Your task to perform on an android device: turn on javascript in the chrome app Image 0: 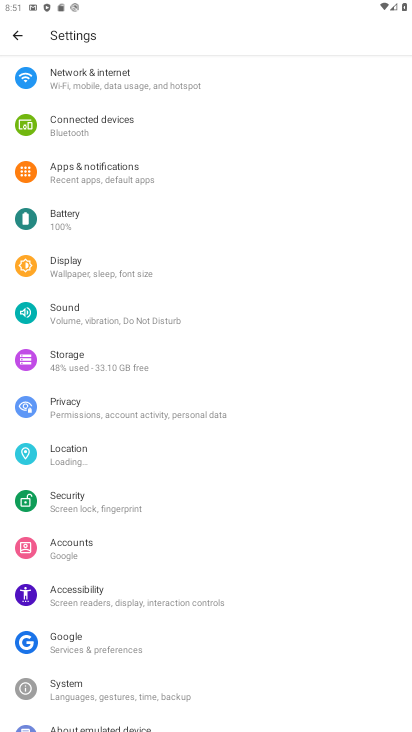
Step 0: press home button
Your task to perform on an android device: turn on javascript in the chrome app Image 1: 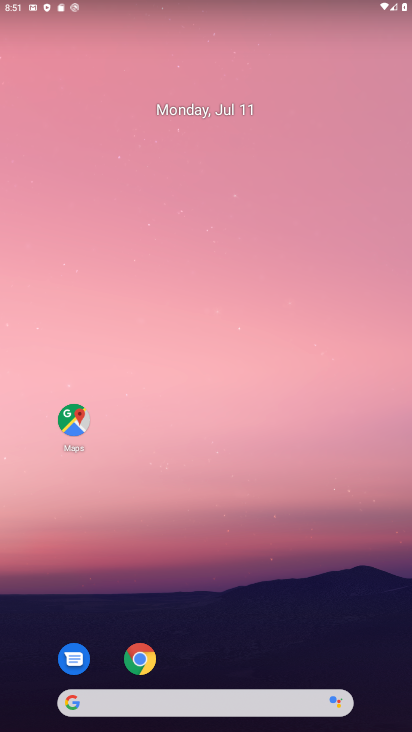
Step 1: drag from (373, 639) to (379, 113)
Your task to perform on an android device: turn on javascript in the chrome app Image 2: 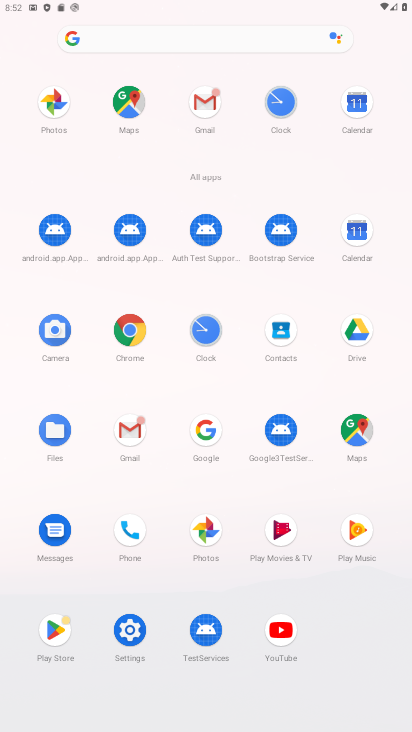
Step 2: click (131, 327)
Your task to perform on an android device: turn on javascript in the chrome app Image 3: 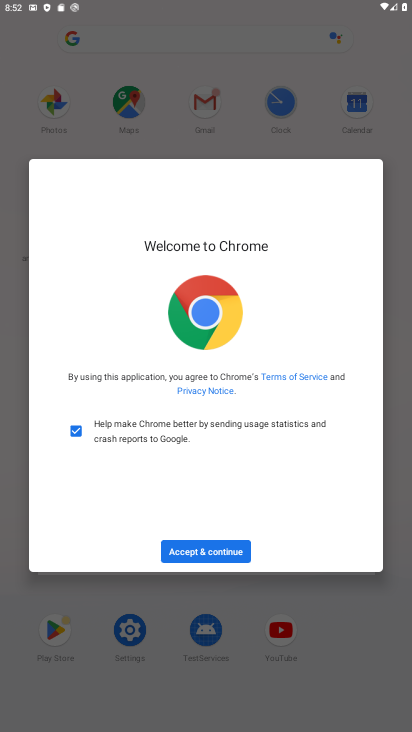
Step 3: click (224, 557)
Your task to perform on an android device: turn on javascript in the chrome app Image 4: 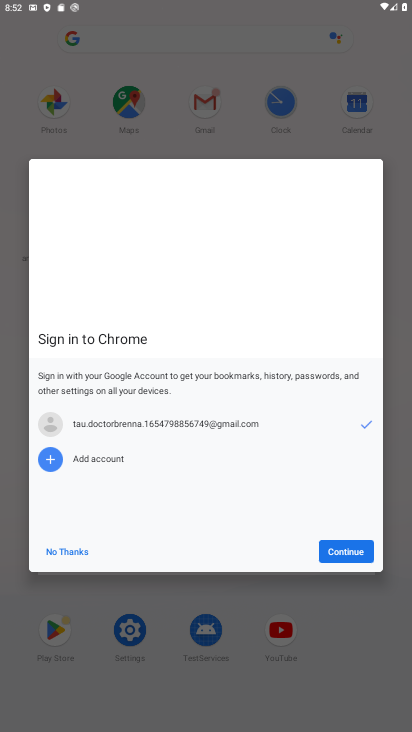
Step 4: click (333, 554)
Your task to perform on an android device: turn on javascript in the chrome app Image 5: 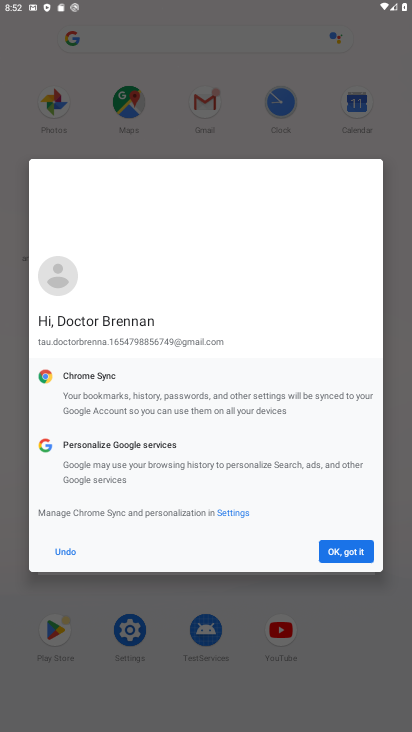
Step 5: click (340, 554)
Your task to perform on an android device: turn on javascript in the chrome app Image 6: 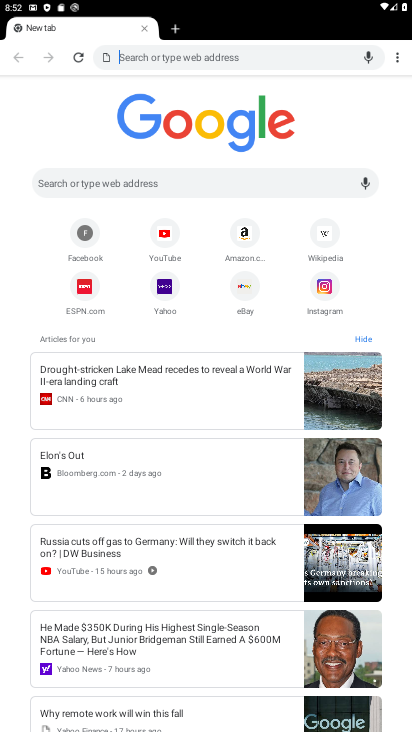
Step 6: click (395, 58)
Your task to perform on an android device: turn on javascript in the chrome app Image 7: 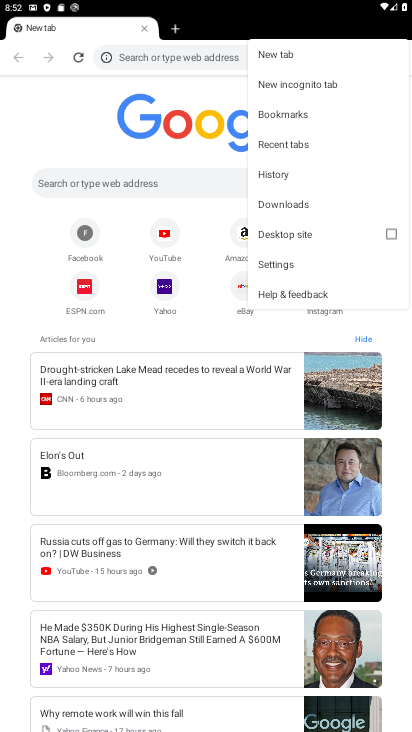
Step 7: click (293, 267)
Your task to perform on an android device: turn on javascript in the chrome app Image 8: 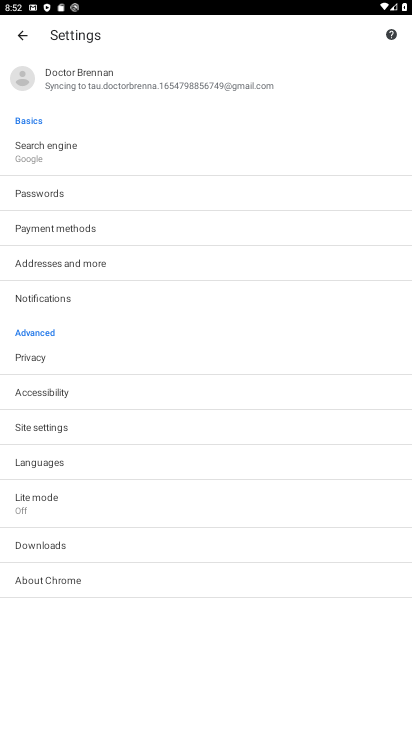
Step 8: click (109, 429)
Your task to perform on an android device: turn on javascript in the chrome app Image 9: 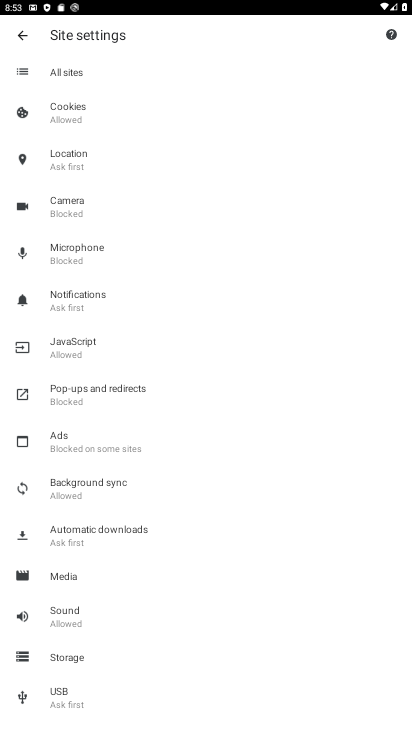
Step 9: click (105, 355)
Your task to perform on an android device: turn on javascript in the chrome app Image 10: 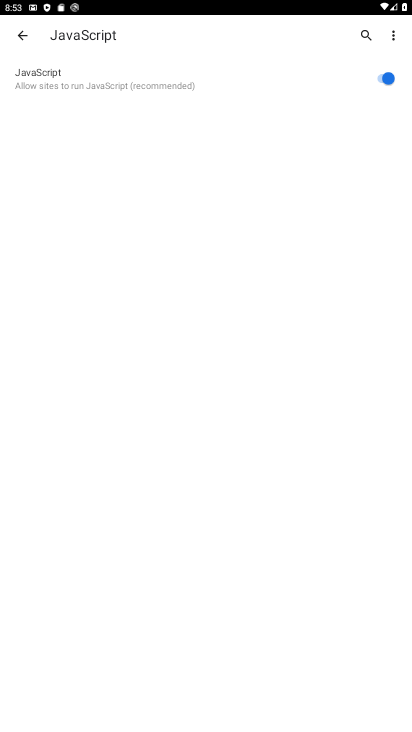
Step 10: task complete